Your task to perform on an android device: change alarm snooze length Image 0: 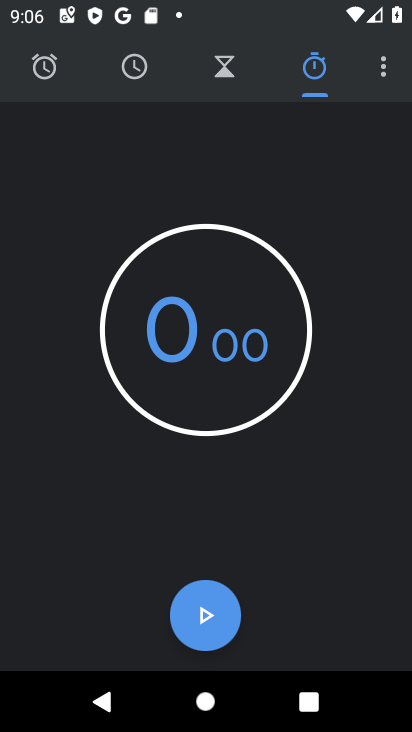
Step 0: press home button
Your task to perform on an android device: change alarm snooze length Image 1: 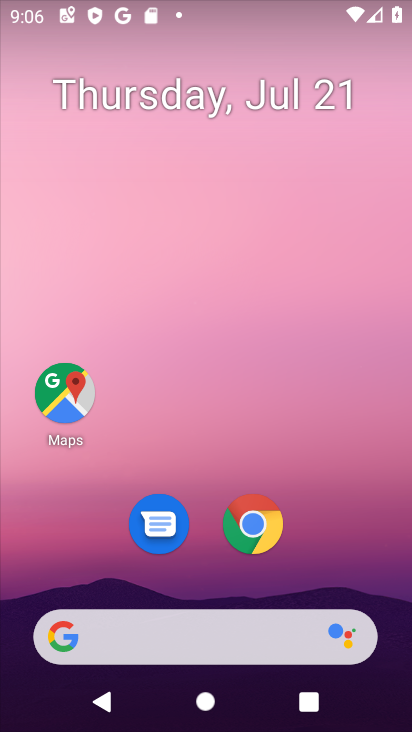
Step 1: drag from (190, 637) to (259, 32)
Your task to perform on an android device: change alarm snooze length Image 2: 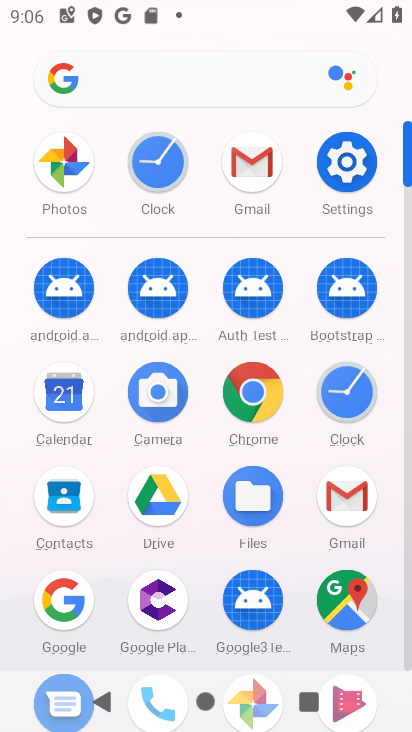
Step 2: click (146, 161)
Your task to perform on an android device: change alarm snooze length Image 3: 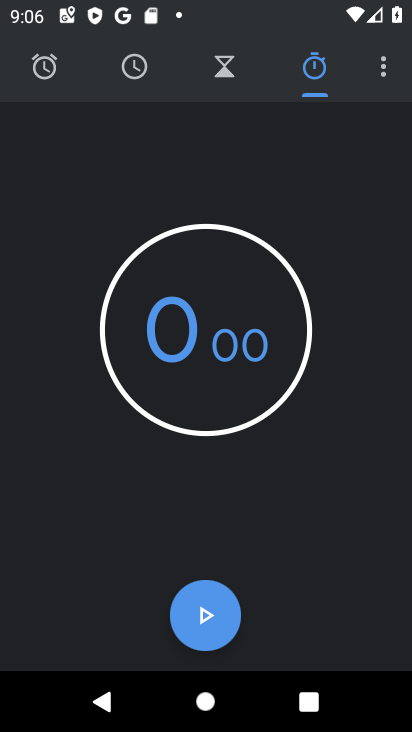
Step 3: click (384, 74)
Your task to perform on an android device: change alarm snooze length Image 4: 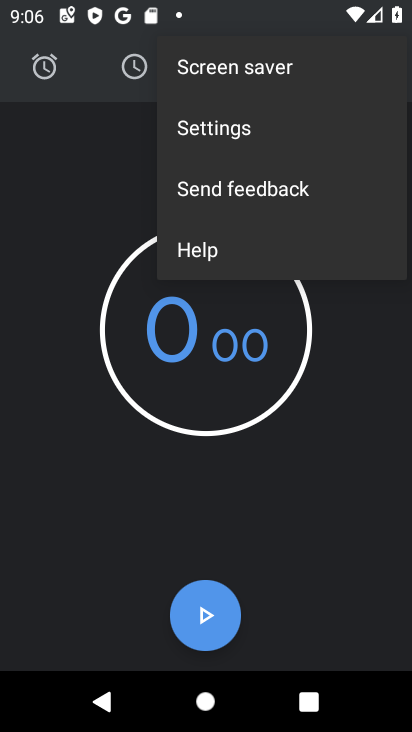
Step 4: click (242, 129)
Your task to perform on an android device: change alarm snooze length Image 5: 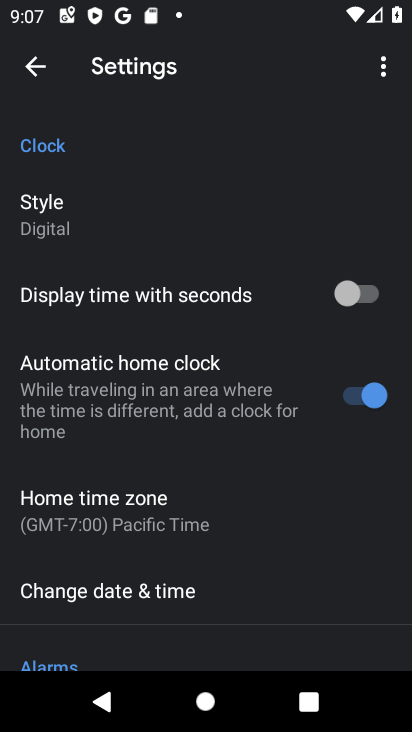
Step 5: drag from (246, 520) to (336, 127)
Your task to perform on an android device: change alarm snooze length Image 6: 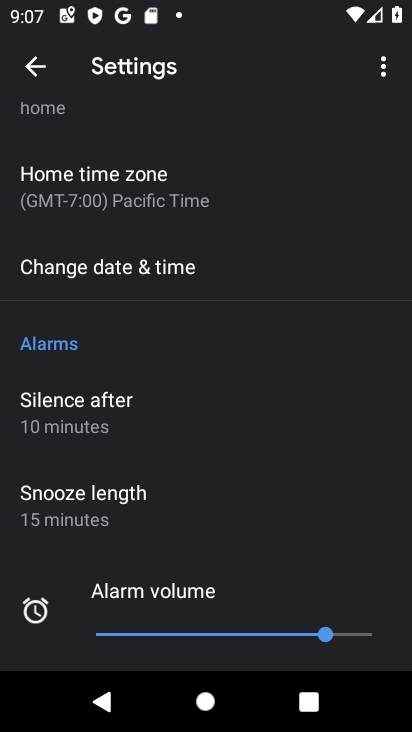
Step 6: click (95, 507)
Your task to perform on an android device: change alarm snooze length Image 7: 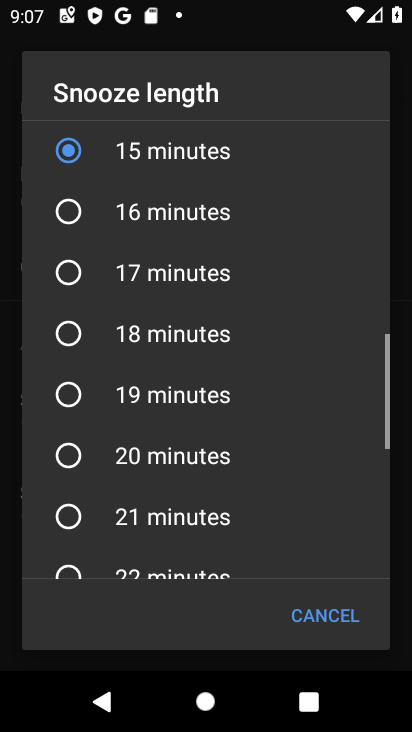
Step 7: drag from (161, 244) to (128, 541)
Your task to perform on an android device: change alarm snooze length Image 8: 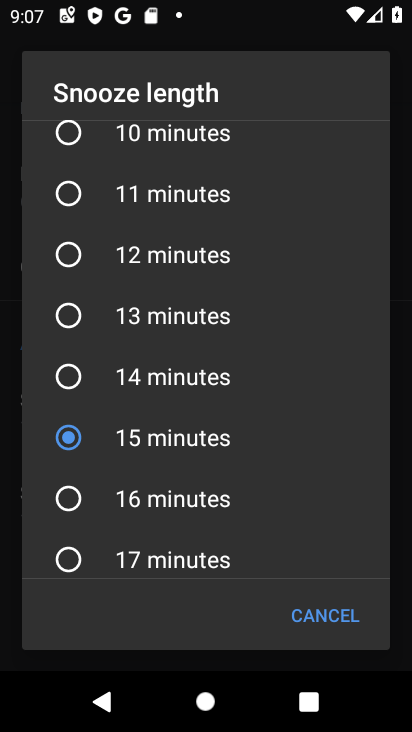
Step 8: click (71, 135)
Your task to perform on an android device: change alarm snooze length Image 9: 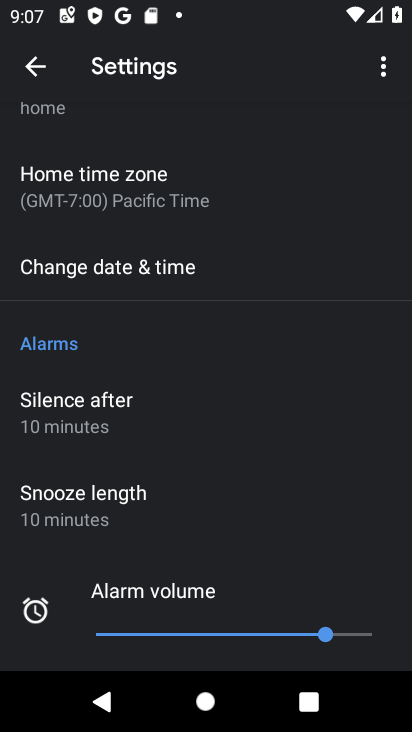
Step 9: task complete